Your task to perform on an android device: When is my next meeting? Image 0: 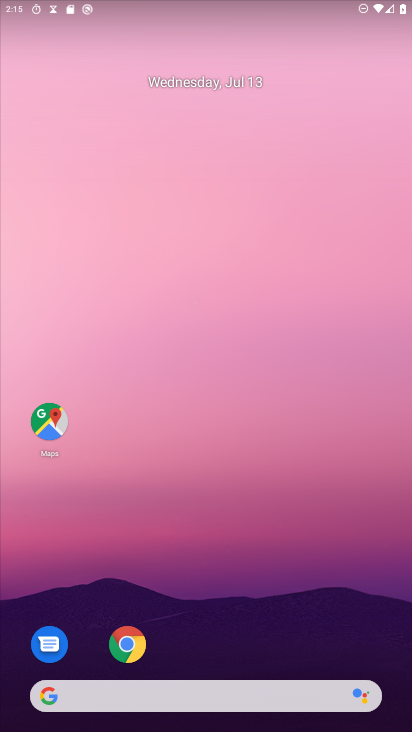
Step 0: press home button
Your task to perform on an android device: When is my next meeting? Image 1: 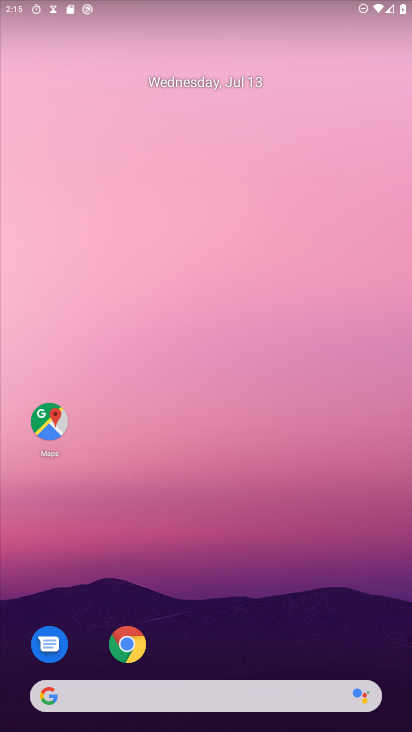
Step 1: drag from (290, 619) to (316, 1)
Your task to perform on an android device: When is my next meeting? Image 2: 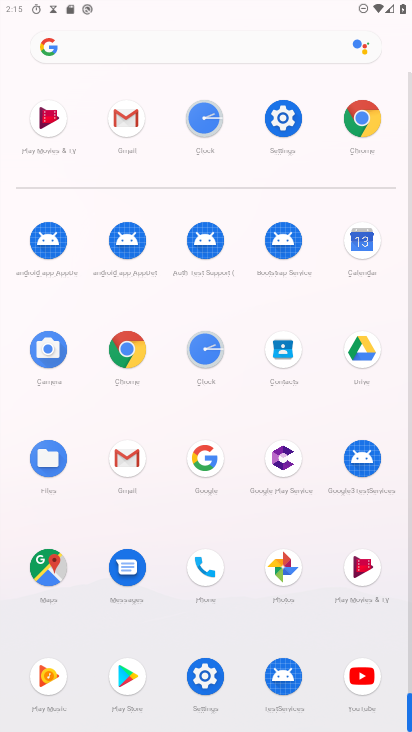
Step 2: click (366, 238)
Your task to perform on an android device: When is my next meeting? Image 3: 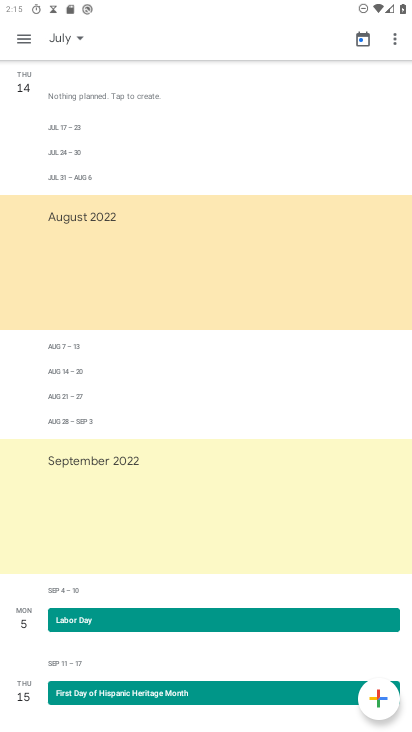
Step 3: click (21, 30)
Your task to perform on an android device: When is my next meeting? Image 4: 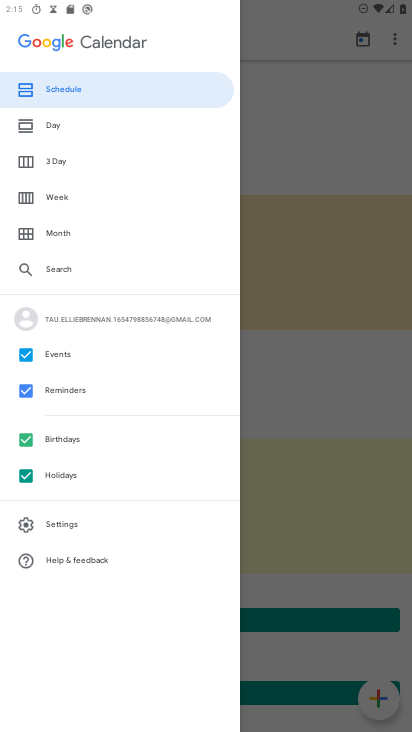
Step 4: click (80, 92)
Your task to perform on an android device: When is my next meeting? Image 5: 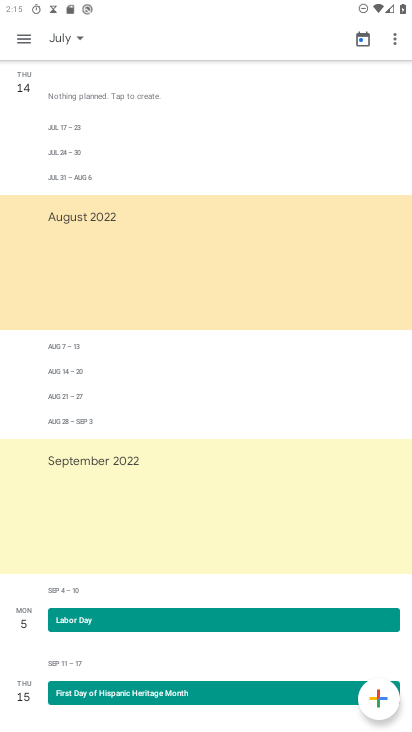
Step 5: task complete